Your task to perform on an android device: turn off improve location accuracy Image 0: 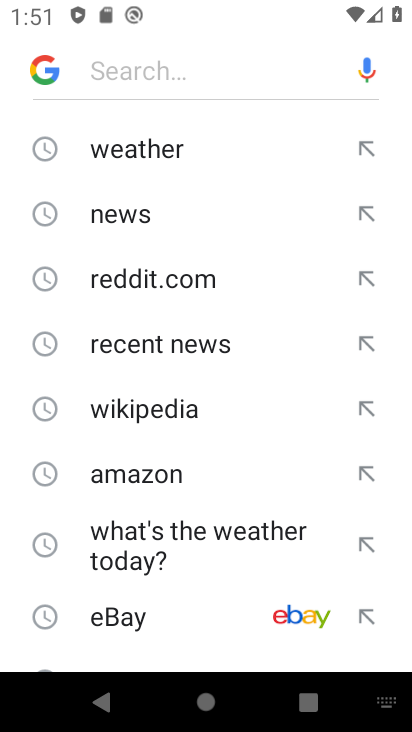
Step 0: press home button
Your task to perform on an android device: turn off improve location accuracy Image 1: 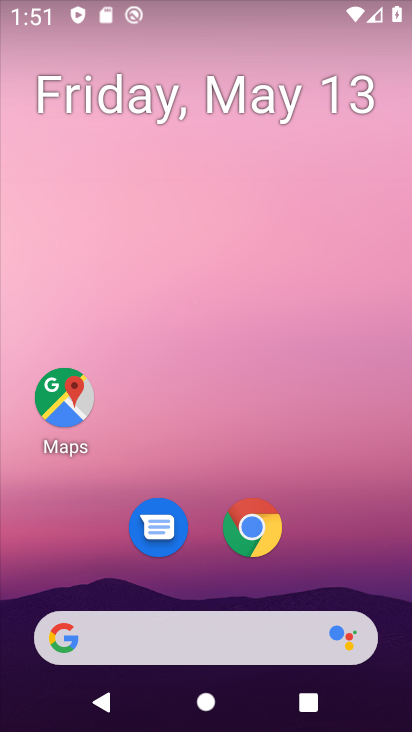
Step 1: drag from (194, 579) to (278, 56)
Your task to perform on an android device: turn off improve location accuracy Image 2: 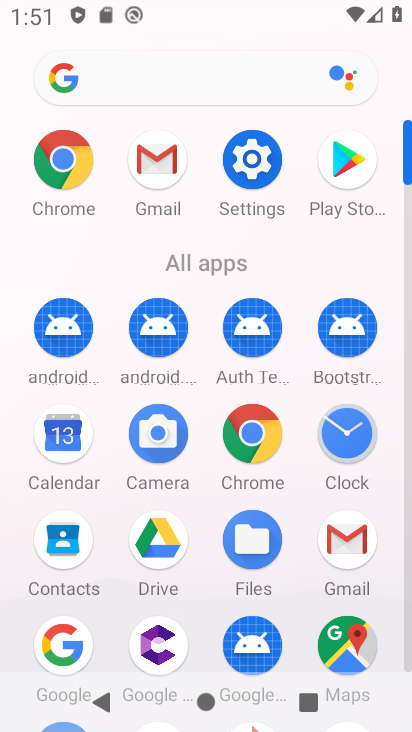
Step 2: click (278, 147)
Your task to perform on an android device: turn off improve location accuracy Image 3: 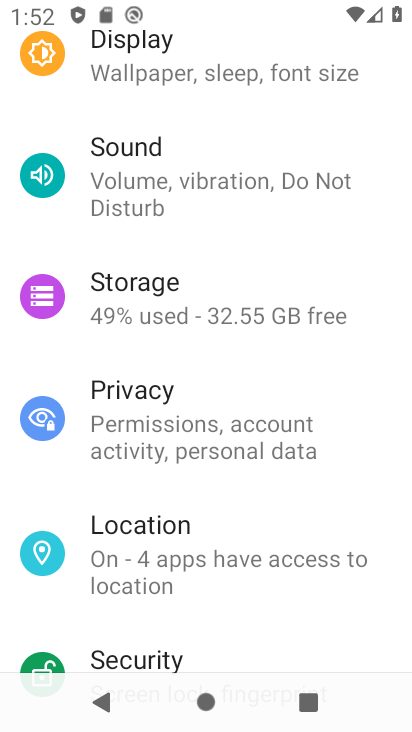
Step 3: click (152, 546)
Your task to perform on an android device: turn off improve location accuracy Image 4: 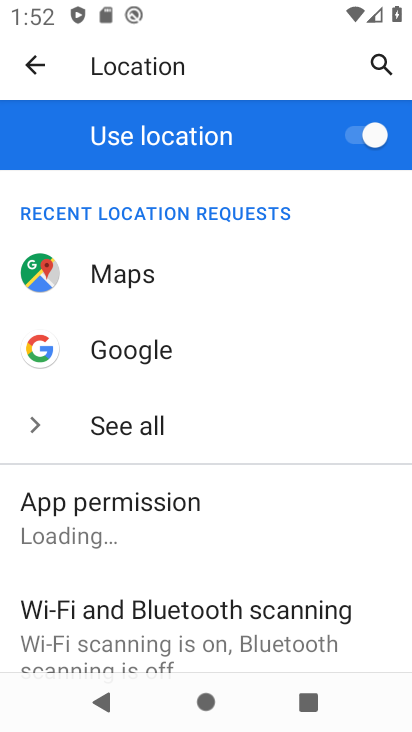
Step 4: drag from (152, 546) to (225, 119)
Your task to perform on an android device: turn off improve location accuracy Image 5: 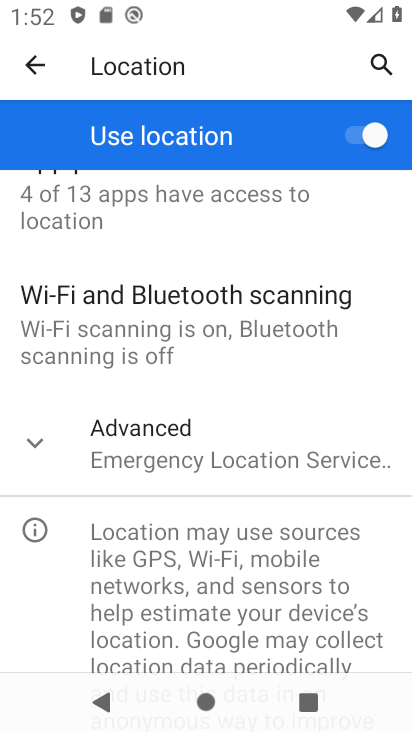
Step 5: click (125, 445)
Your task to perform on an android device: turn off improve location accuracy Image 6: 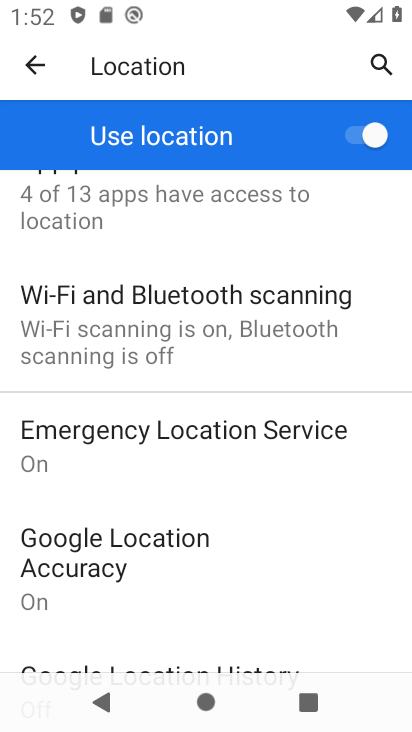
Step 6: click (200, 597)
Your task to perform on an android device: turn off improve location accuracy Image 7: 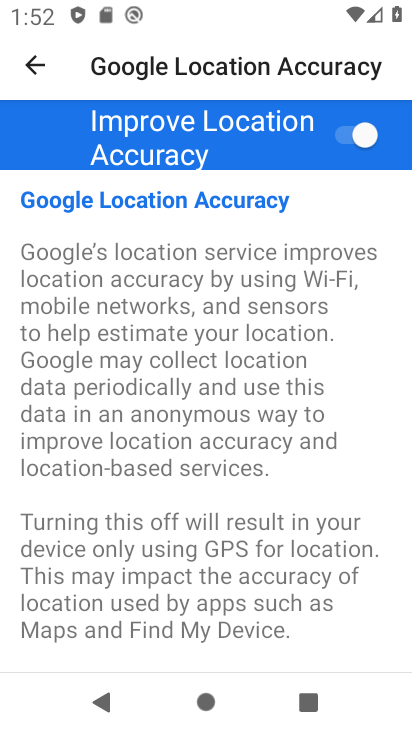
Step 7: click (358, 135)
Your task to perform on an android device: turn off improve location accuracy Image 8: 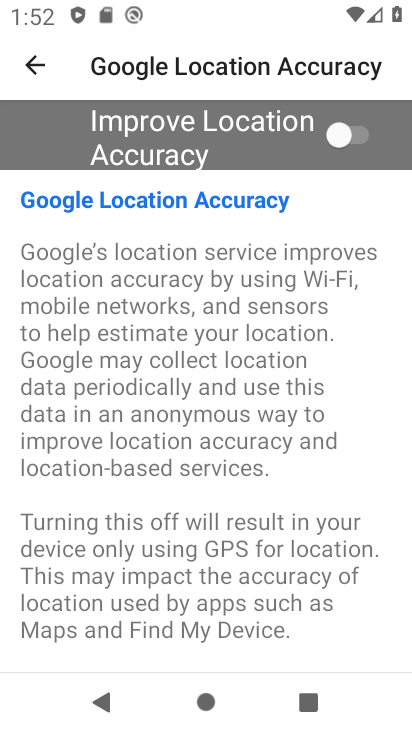
Step 8: task complete